Your task to perform on an android device: check out phone information Image 0: 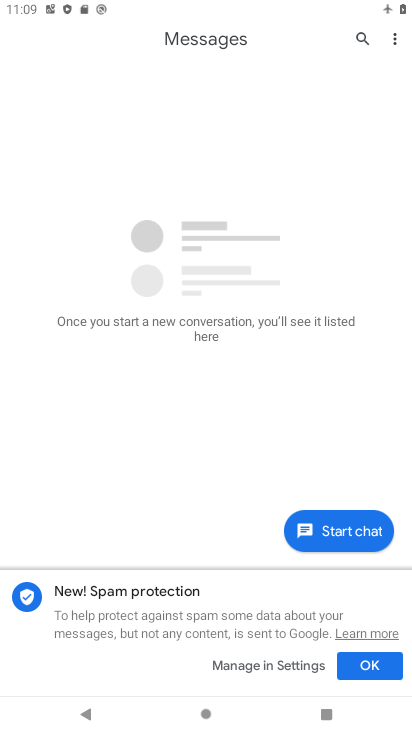
Step 0: press home button
Your task to perform on an android device: check out phone information Image 1: 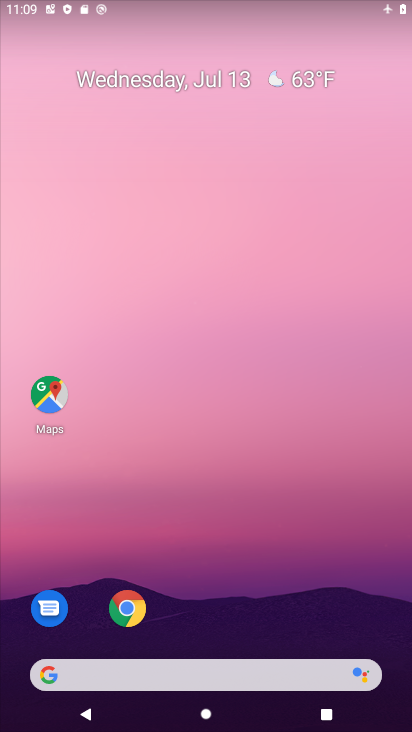
Step 1: drag from (255, 541) to (327, 53)
Your task to perform on an android device: check out phone information Image 2: 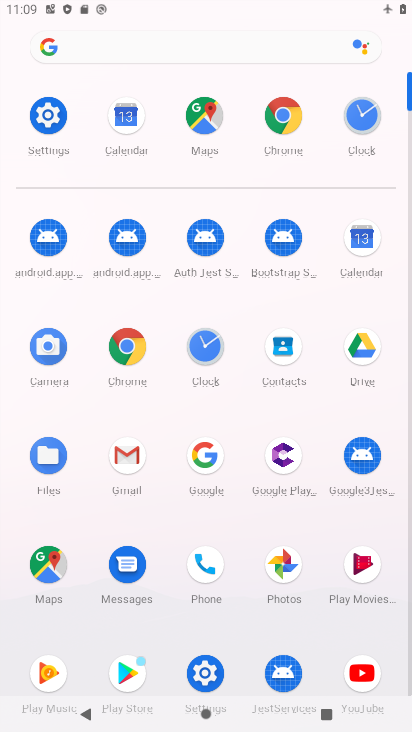
Step 2: drag from (287, 588) to (324, 194)
Your task to perform on an android device: check out phone information Image 3: 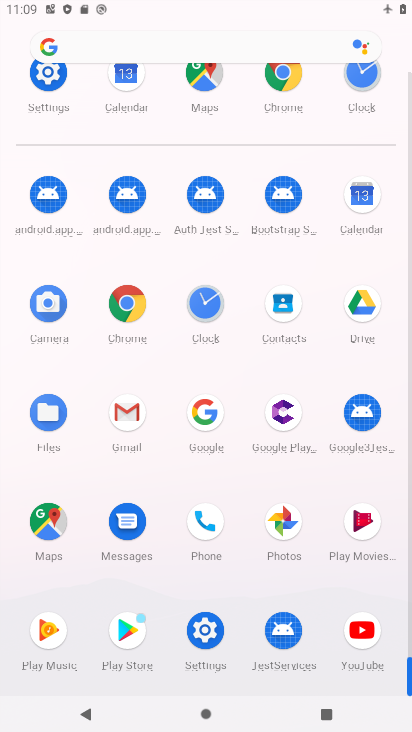
Step 3: click (46, 84)
Your task to perform on an android device: check out phone information Image 4: 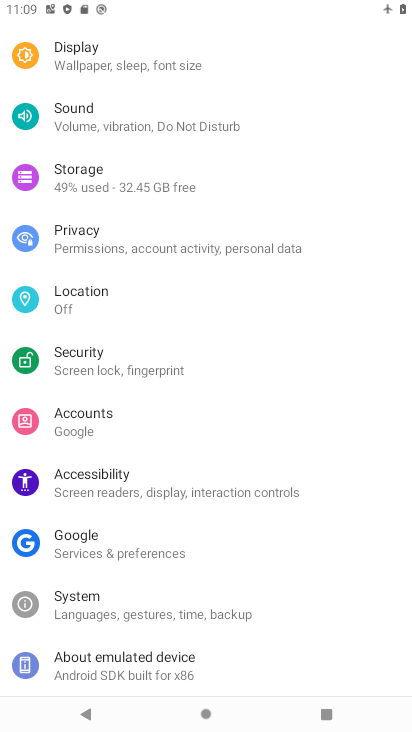
Step 4: click (122, 655)
Your task to perform on an android device: check out phone information Image 5: 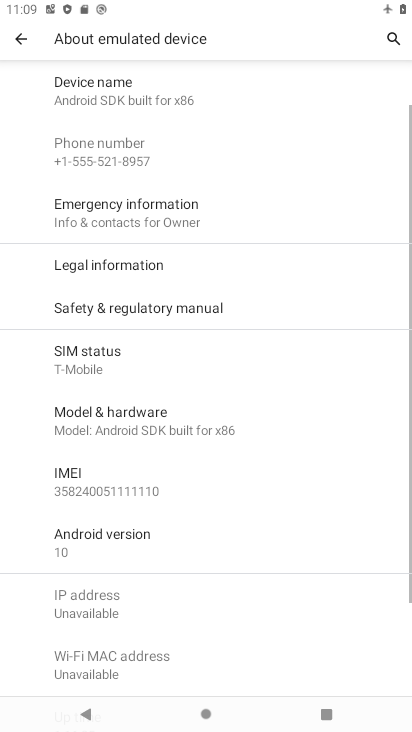
Step 5: task complete